Your task to perform on an android device: star an email in the gmail app Image 0: 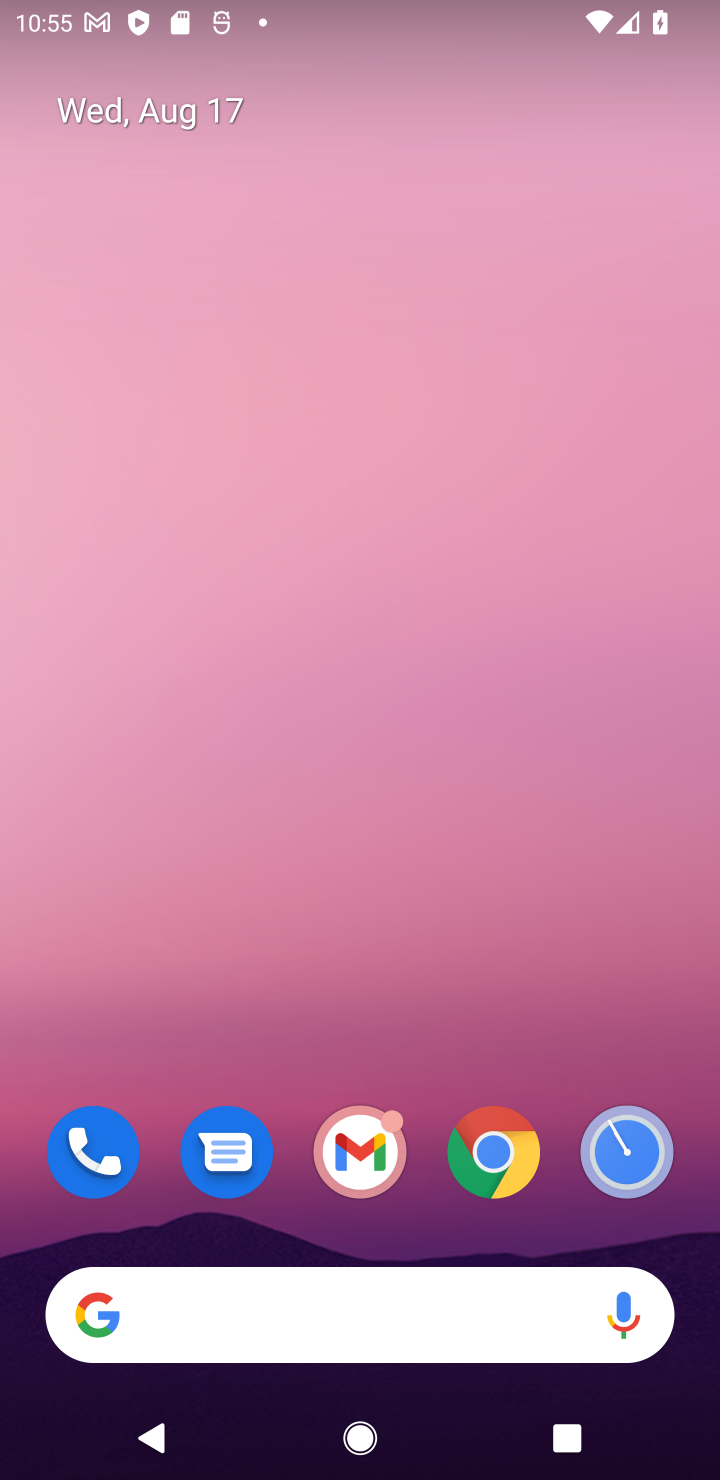
Step 0: drag from (675, 961) to (367, 5)
Your task to perform on an android device: star an email in the gmail app Image 1: 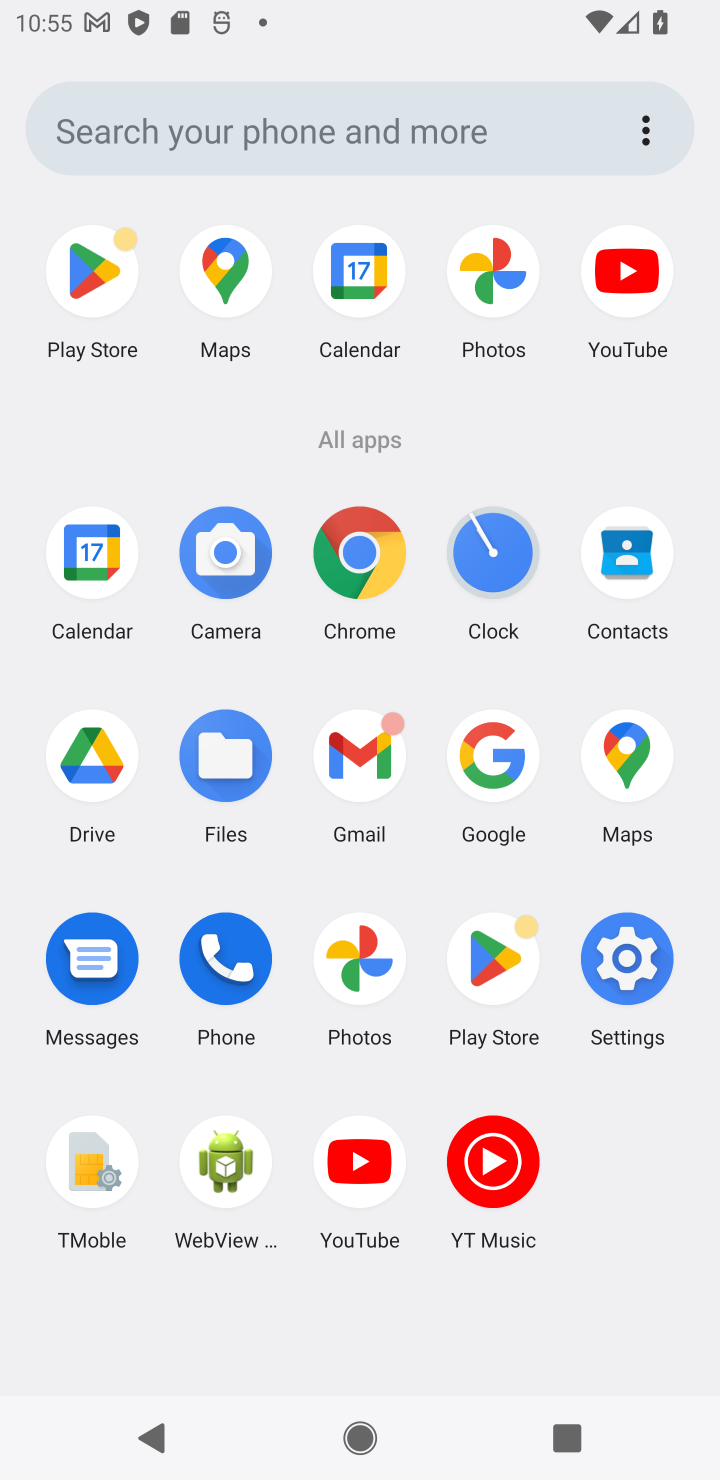
Step 1: click (363, 756)
Your task to perform on an android device: star an email in the gmail app Image 2: 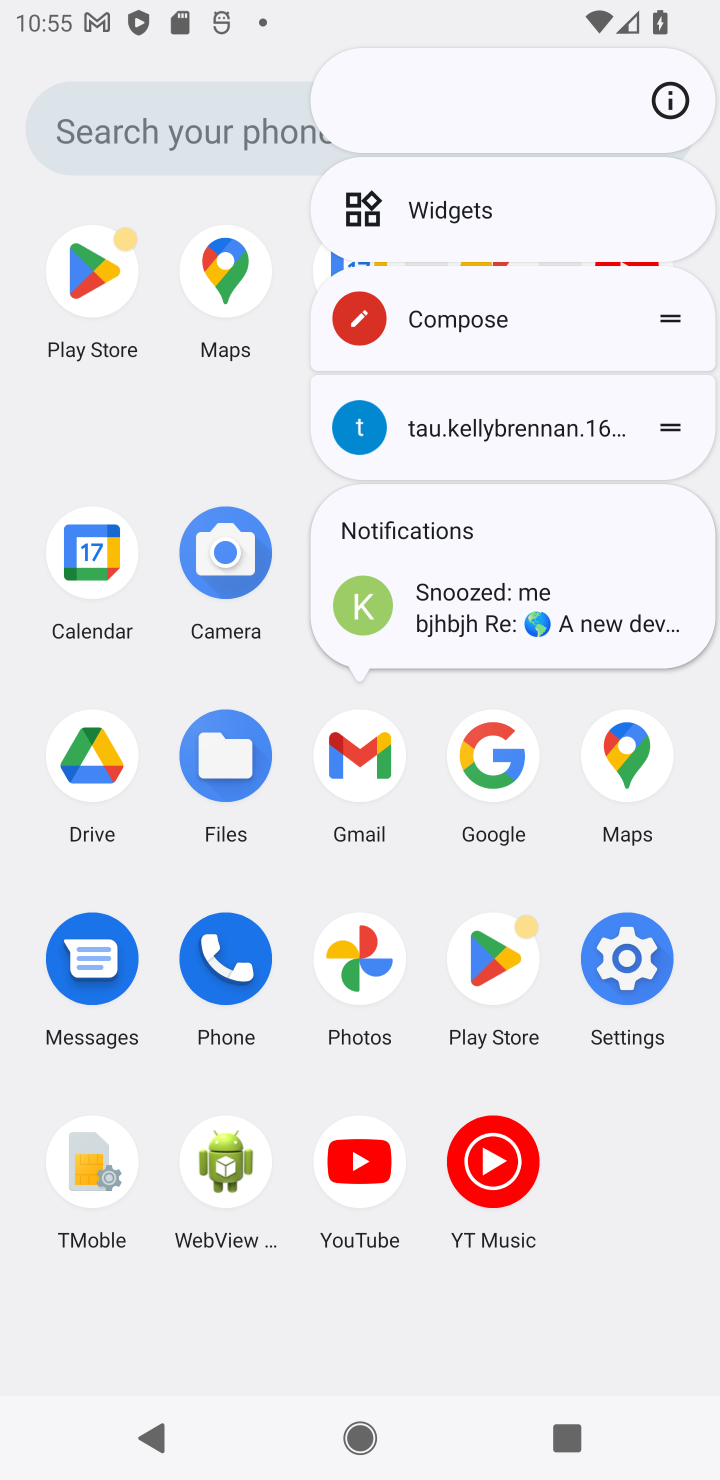
Step 2: click (291, 771)
Your task to perform on an android device: star an email in the gmail app Image 3: 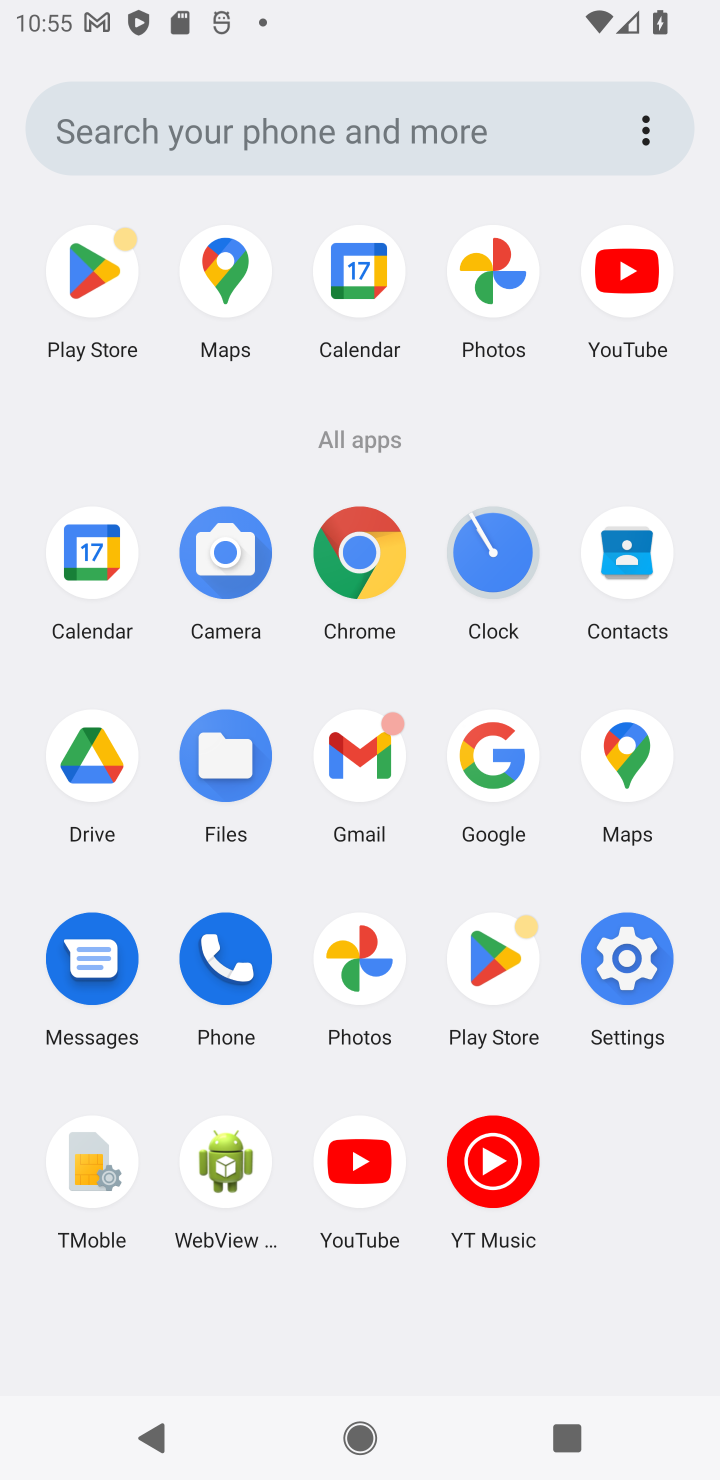
Step 3: click (359, 790)
Your task to perform on an android device: star an email in the gmail app Image 4: 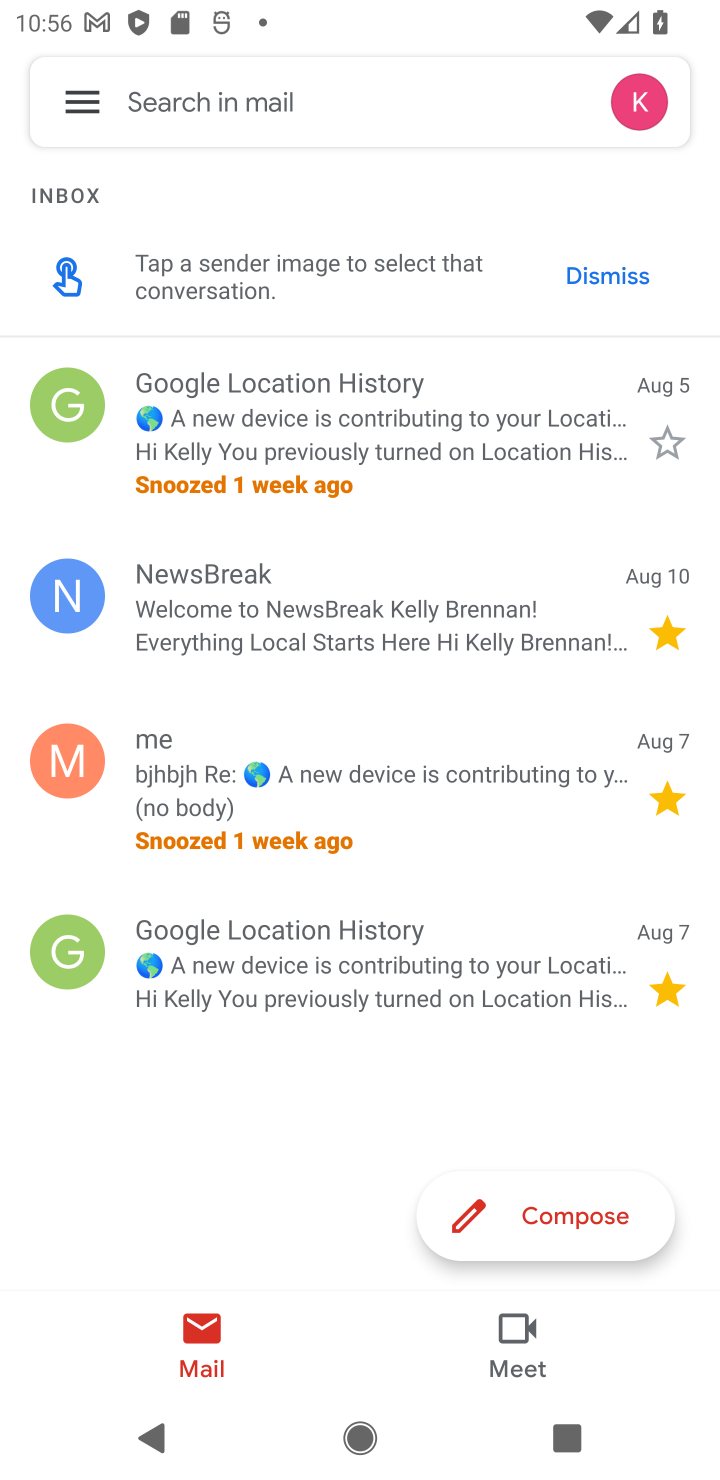
Step 4: click (659, 444)
Your task to perform on an android device: star an email in the gmail app Image 5: 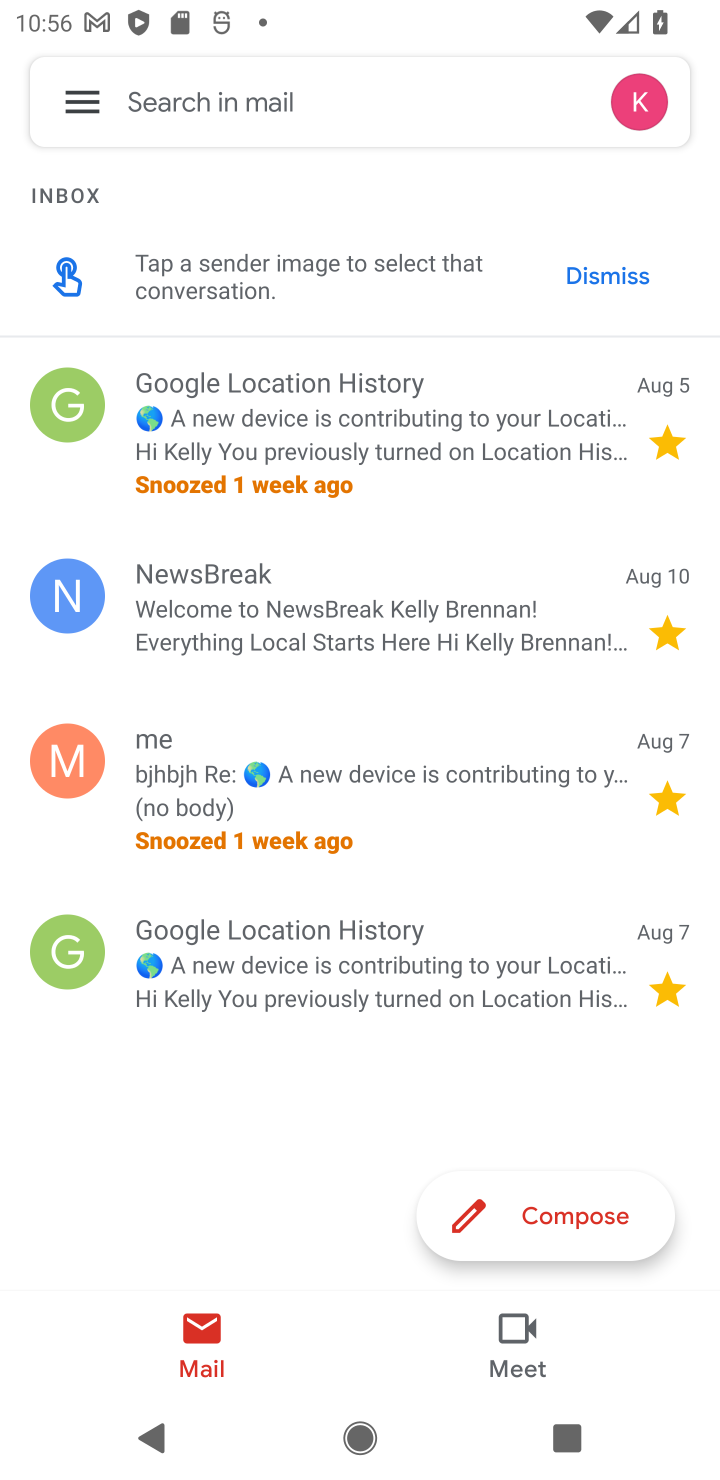
Step 5: task complete